Your task to perform on an android device: Go to battery settings Image 0: 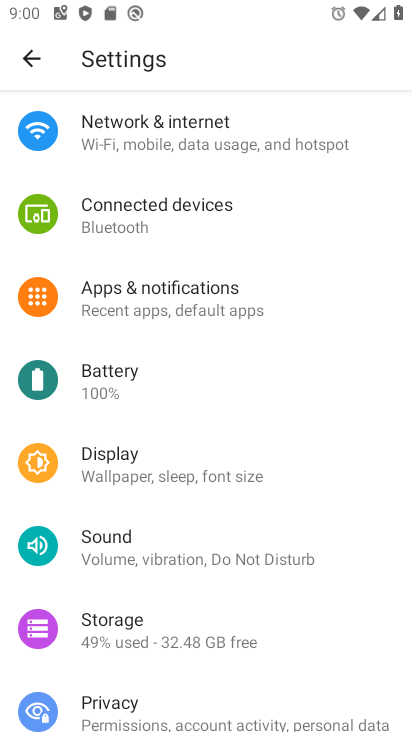
Step 0: click (118, 381)
Your task to perform on an android device: Go to battery settings Image 1: 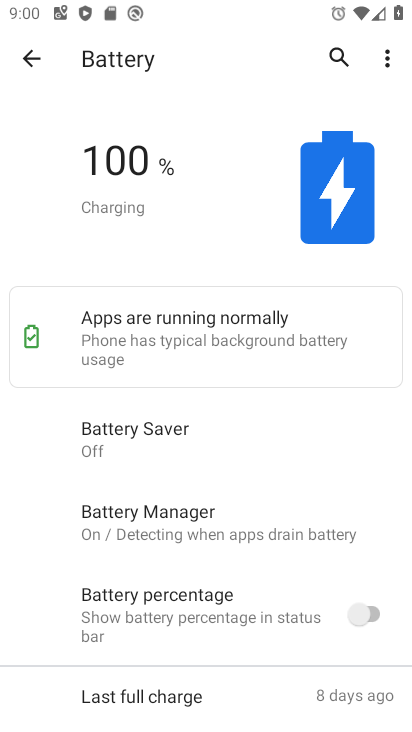
Step 1: task complete